Your task to perform on an android device: check google app version Image 0: 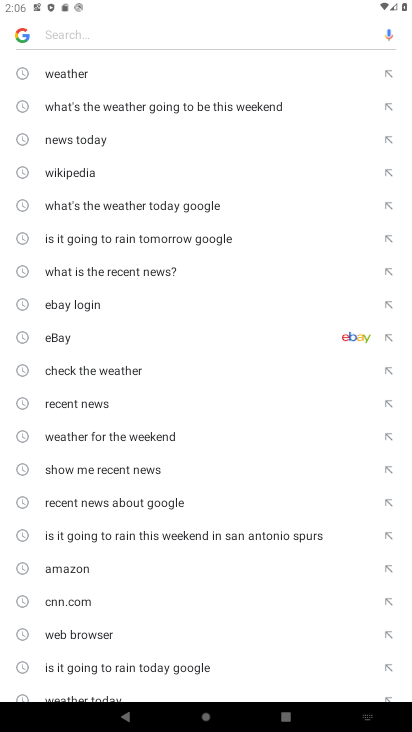
Step 0: press back button
Your task to perform on an android device: check google app version Image 1: 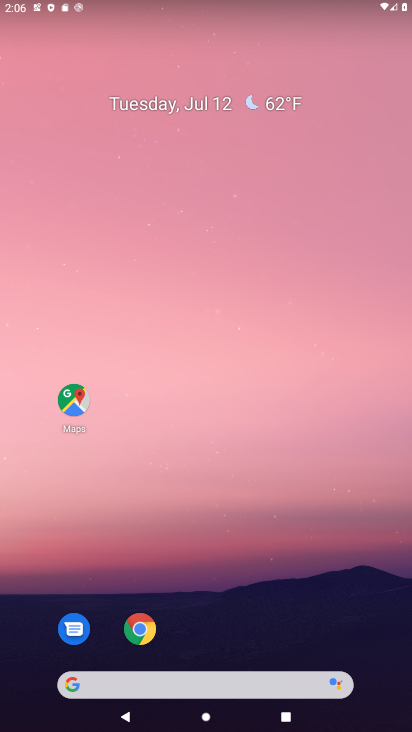
Step 1: drag from (209, 622) to (205, 29)
Your task to perform on an android device: check google app version Image 2: 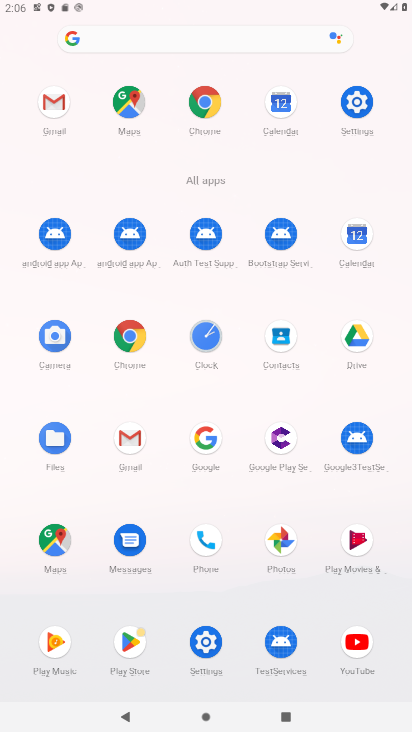
Step 2: click (211, 434)
Your task to perform on an android device: check google app version Image 3: 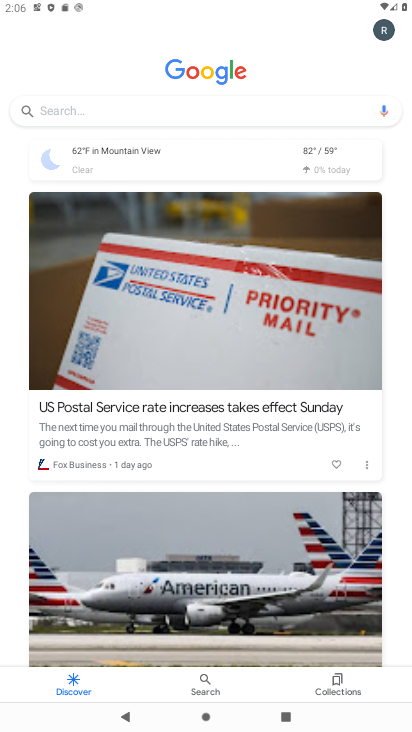
Step 3: click (382, 29)
Your task to perform on an android device: check google app version Image 4: 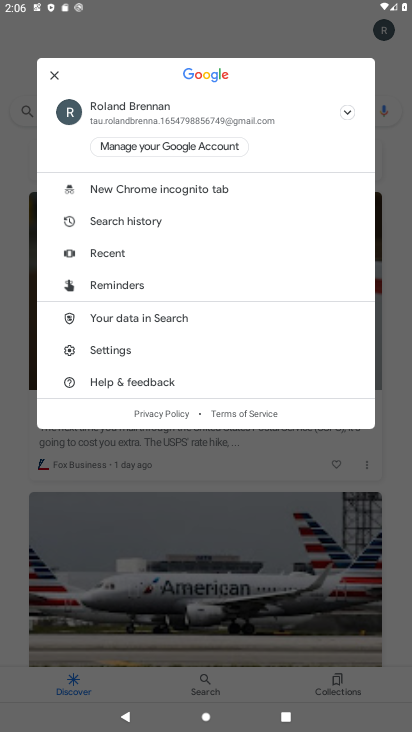
Step 4: click (134, 348)
Your task to perform on an android device: check google app version Image 5: 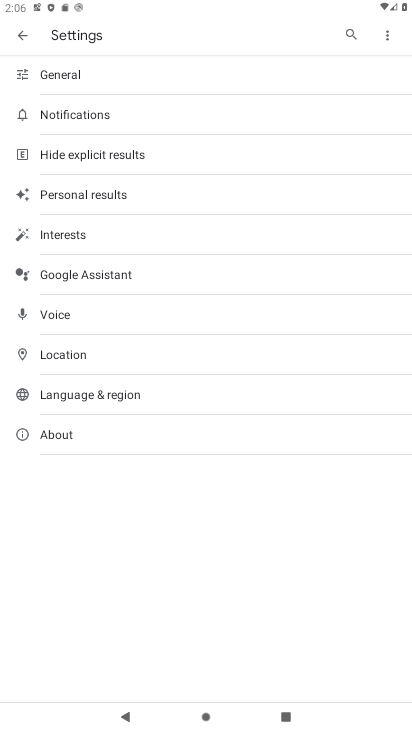
Step 5: click (77, 438)
Your task to perform on an android device: check google app version Image 6: 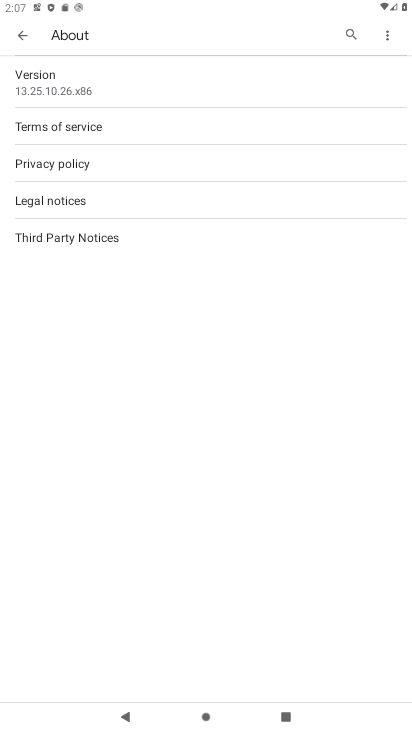
Step 6: click (70, 73)
Your task to perform on an android device: check google app version Image 7: 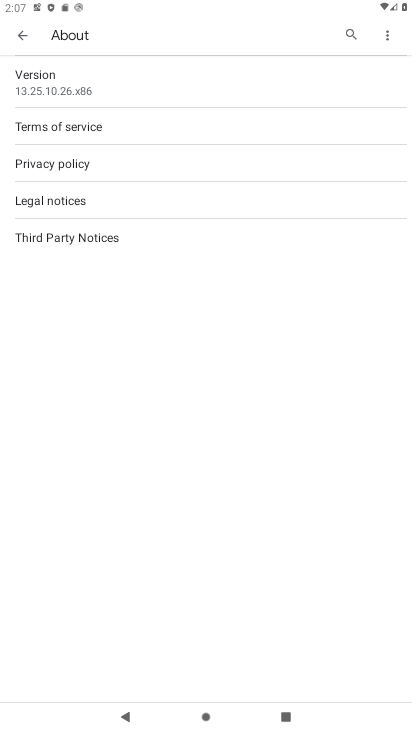
Step 7: task complete